Your task to perform on an android device: change alarm snooze length Image 0: 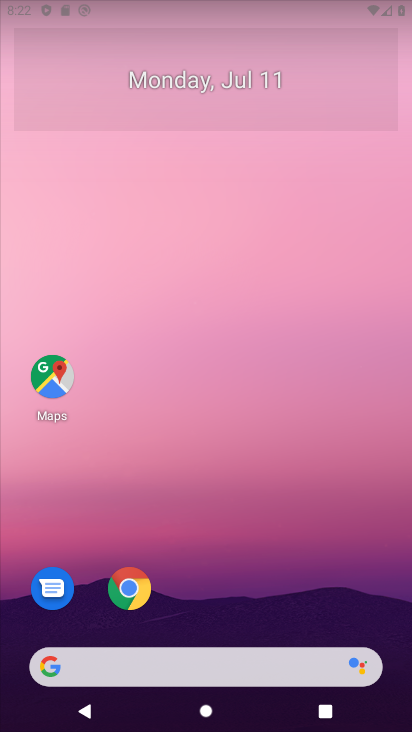
Step 0: drag from (259, 582) to (390, 375)
Your task to perform on an android device: change alarm snooze length Image 1: 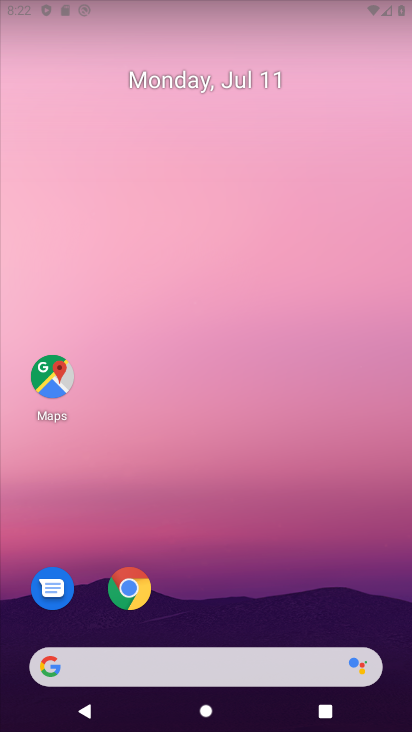
Step 1: drag from (267, 644) to (410, 1)
Your task to perform on an android device: change alarm snooze length Image 2: 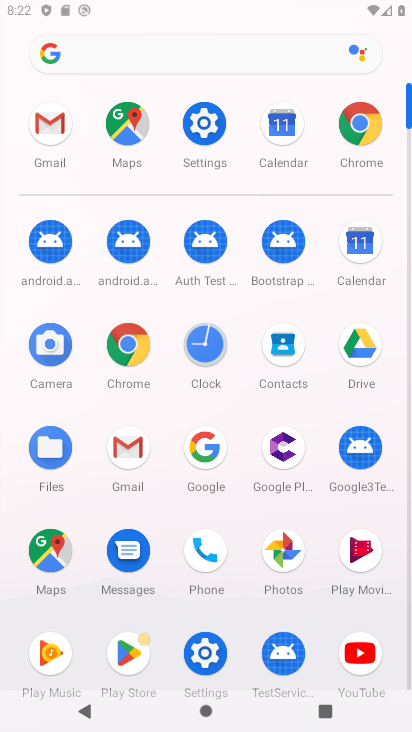
Step 2: click (205, 357)
Your task to perform on an android device: change alarm snooze length Image 3: 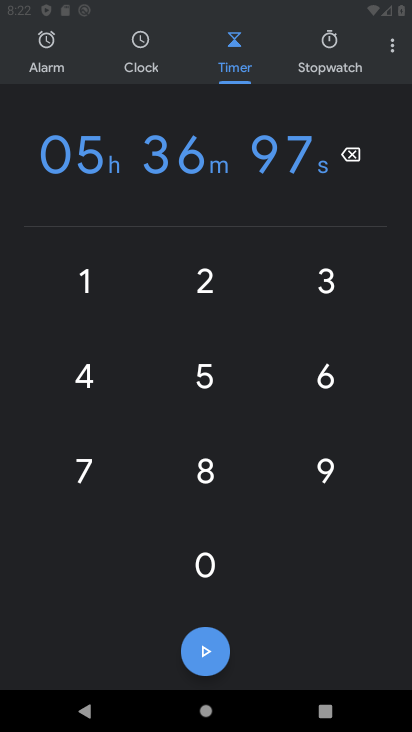
Step 3: click (395, 45)
Your task to perform on an android device: change alarm snooze length Image 4: 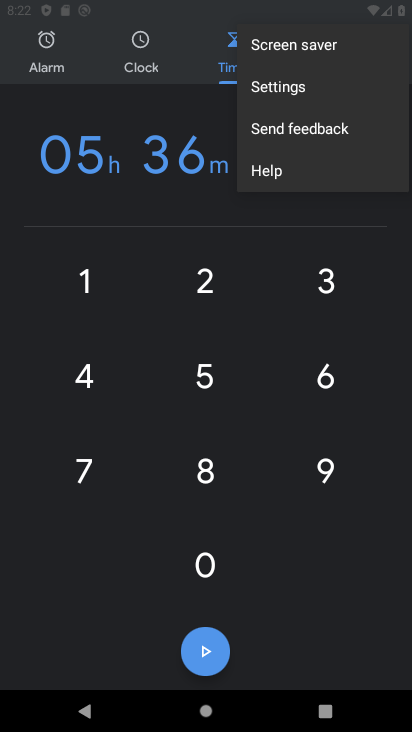
Step 4: click (280, 103)
Your task to perform on an android device: change alarm snooze length Image 5: 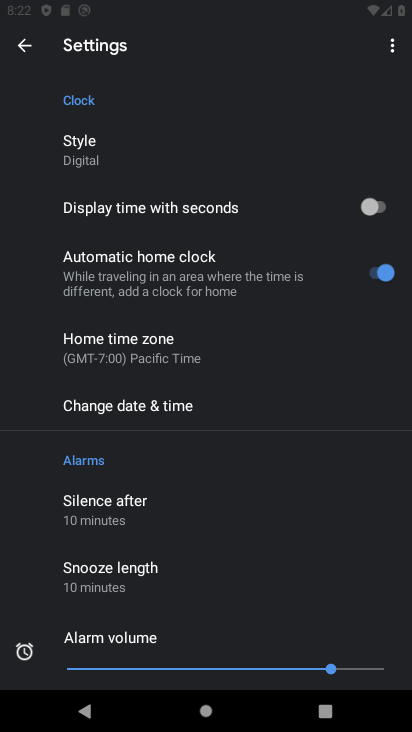
Step 5: click (151, 587)
Your task to perform on an android device: change alarm snooze length Image 6: 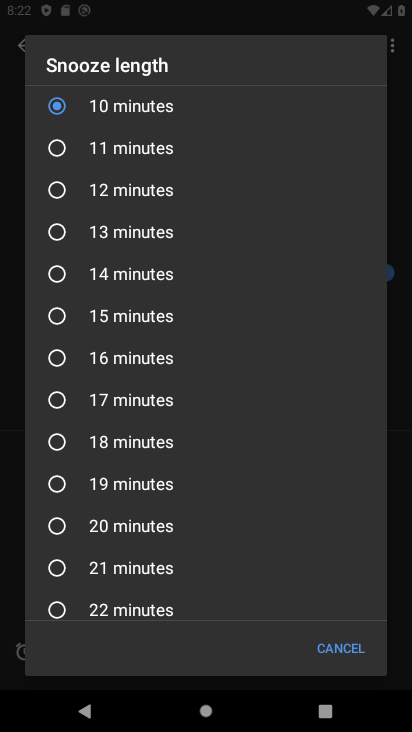
Step 6: click (133, 406)
Your task to perform on an android device: change alarm snooze length Image 7: 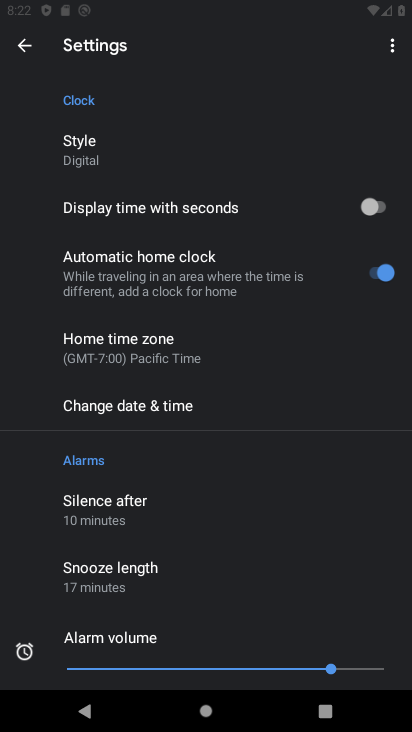
Step 7: task complete